Your task to perform on an android device: find which apps use the phone's location Image 0: 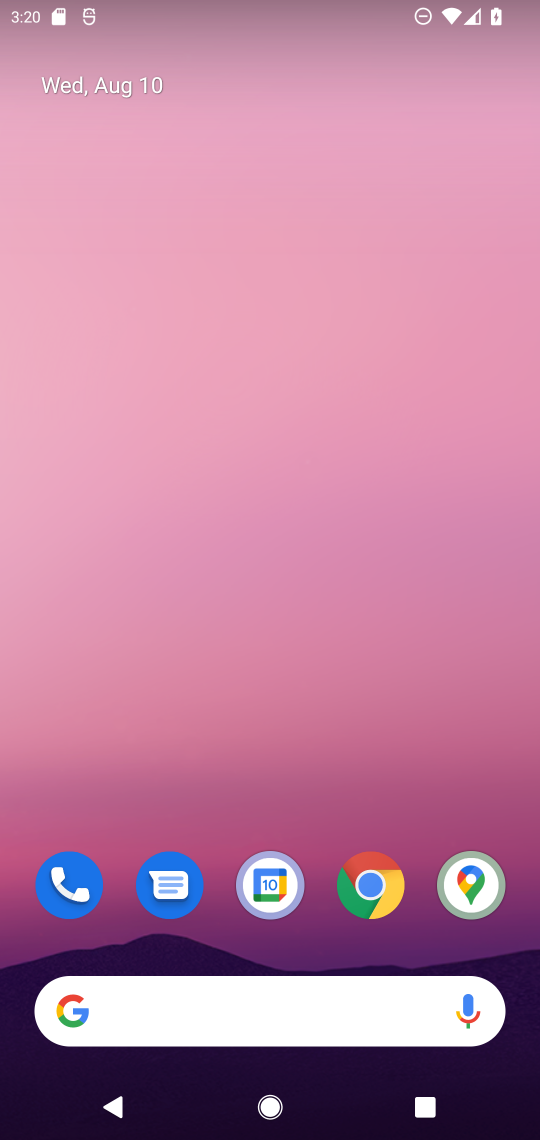
Step 0: drag from (319, 945) to (454, 34)
Your task to perform on an android device: find which apps use the phone's location Image 1: 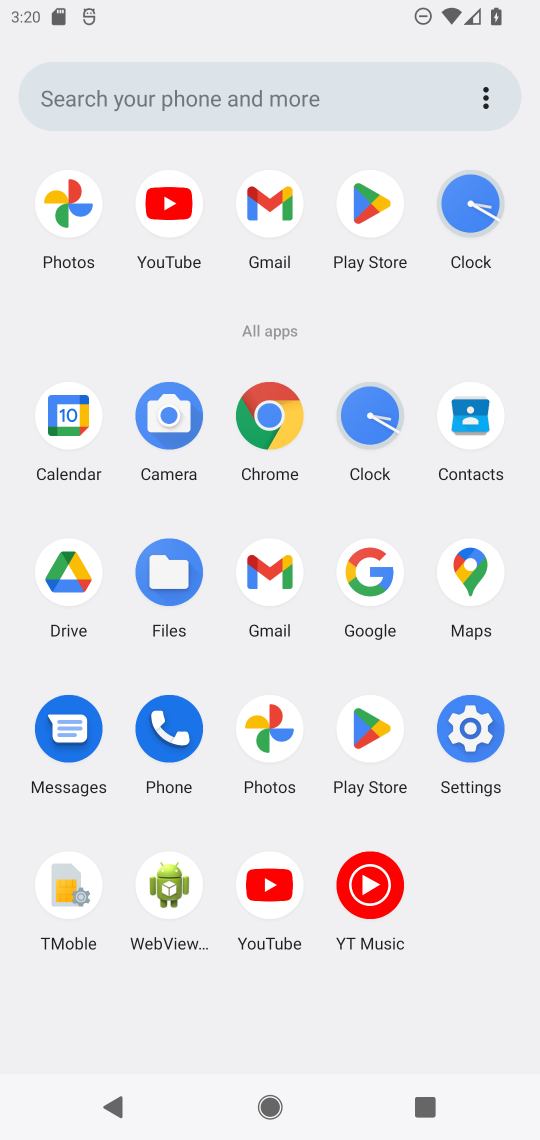
Step 1: click (470, 723)
Your task to perform on an android device: find which apps use the phone's location Image 2: 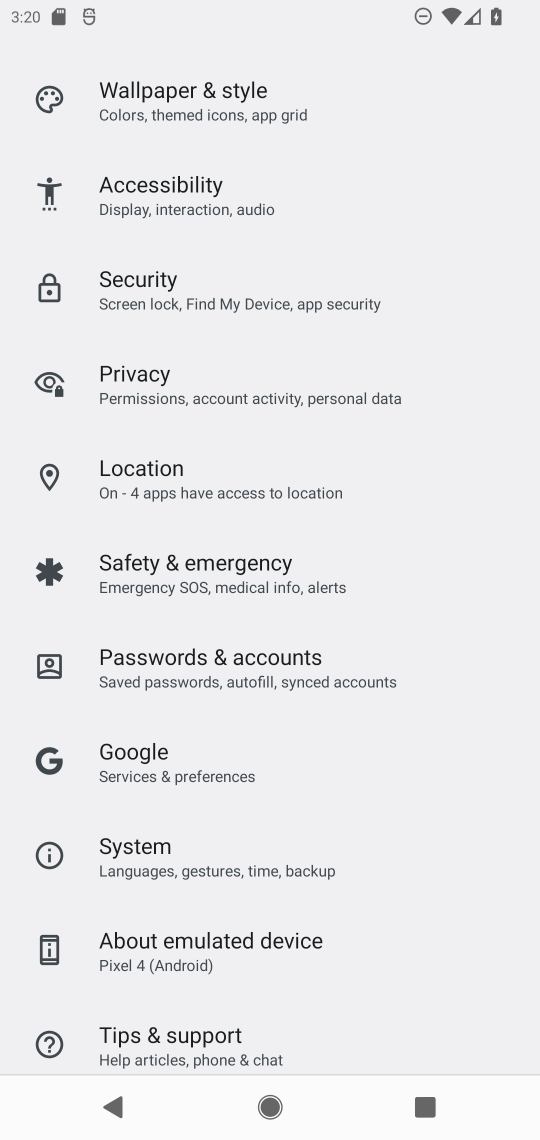
Step 2: click (147, 458)
Your task to perform on an android device: find which apps use the phone's location Image 3: 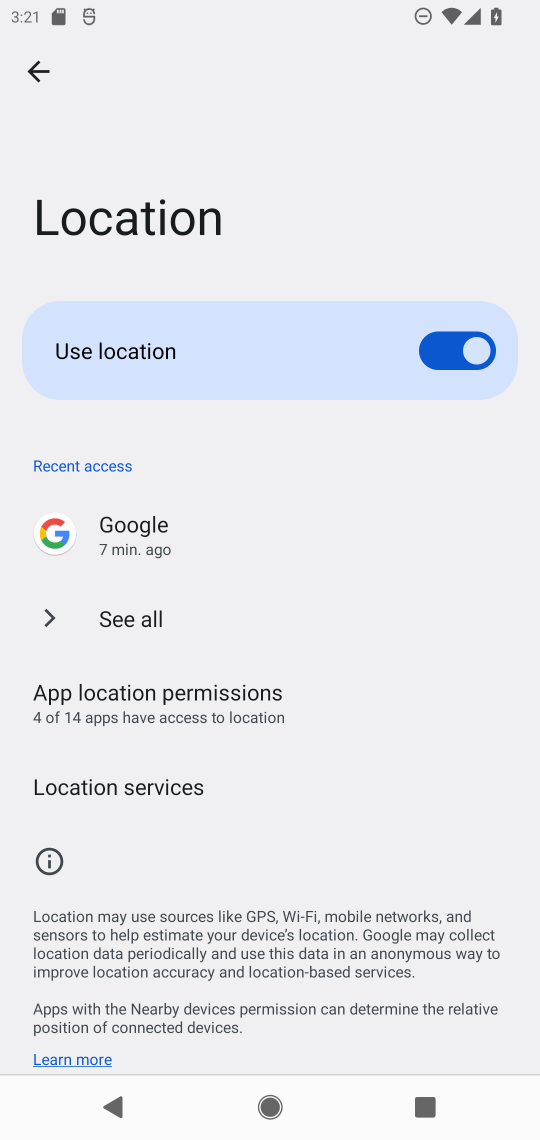
Step 3: click (108, 608)
Your task to perform on an android device: find which apps use the phone's location Image 4: 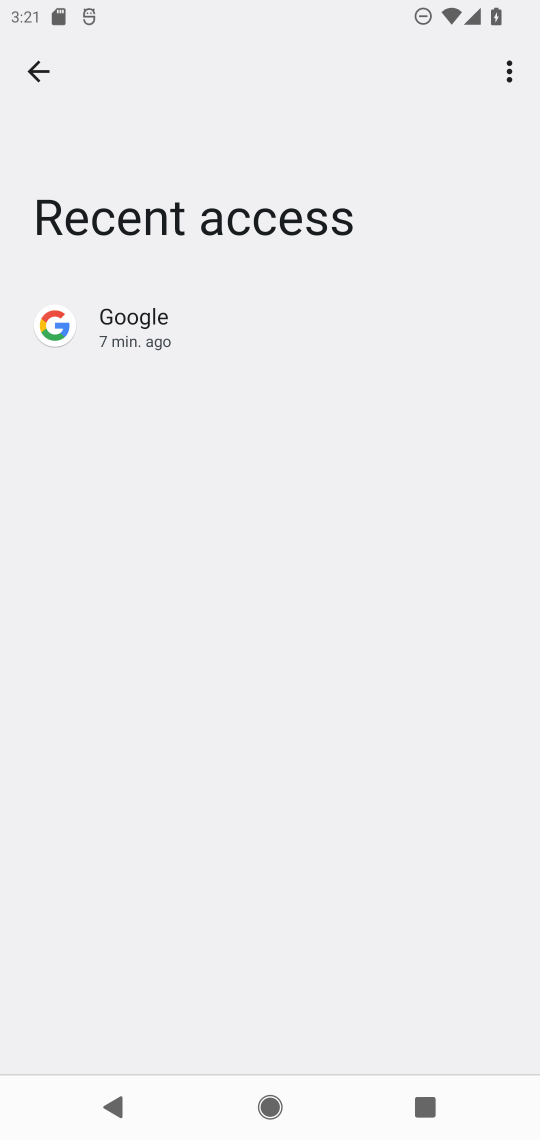
Step 4: task complete